Your task to perform on an android device: allow notifications from all sites in the chrome app Image 0: 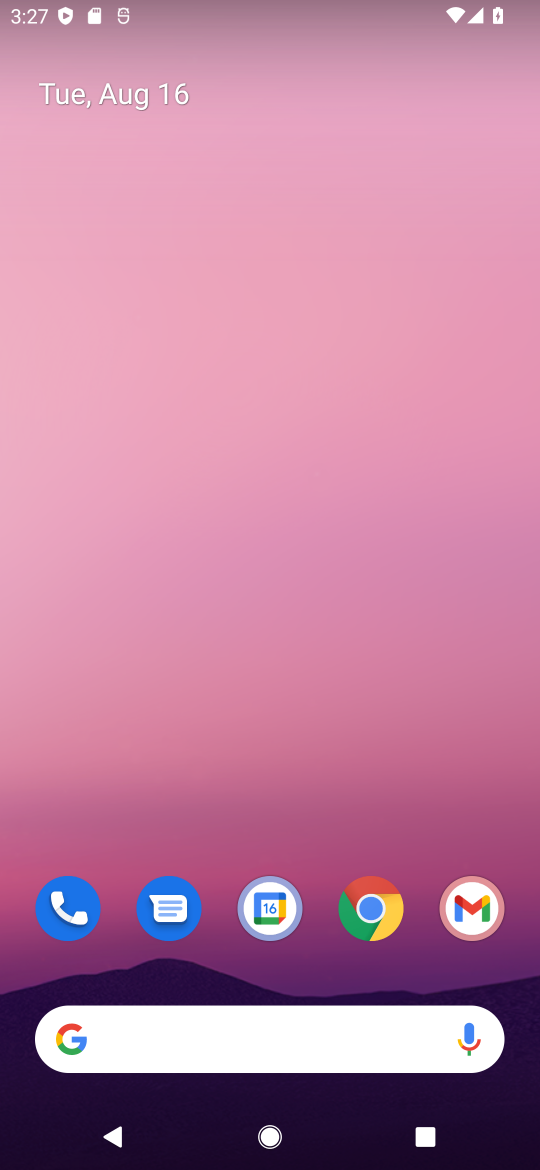
Step 0: press home button
Your task to perform on an android device: allow notifications from all sites in the chrome app Image 1: 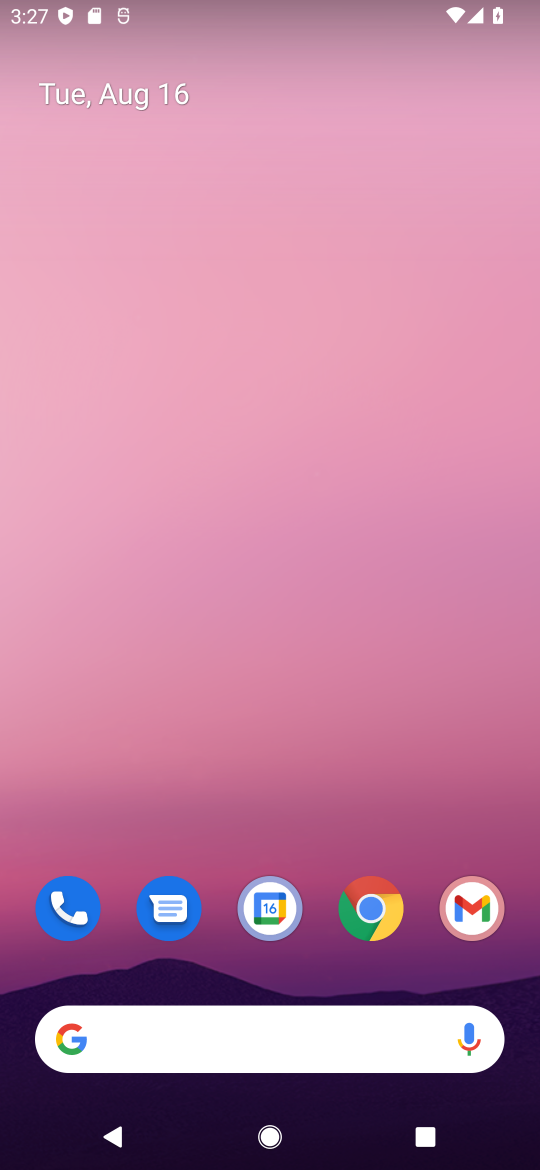
Step 1: drag from (320, 974) to (368, 223)
Your task to perform on an android device: allow notifications from all sites in the chrome app Image 2: 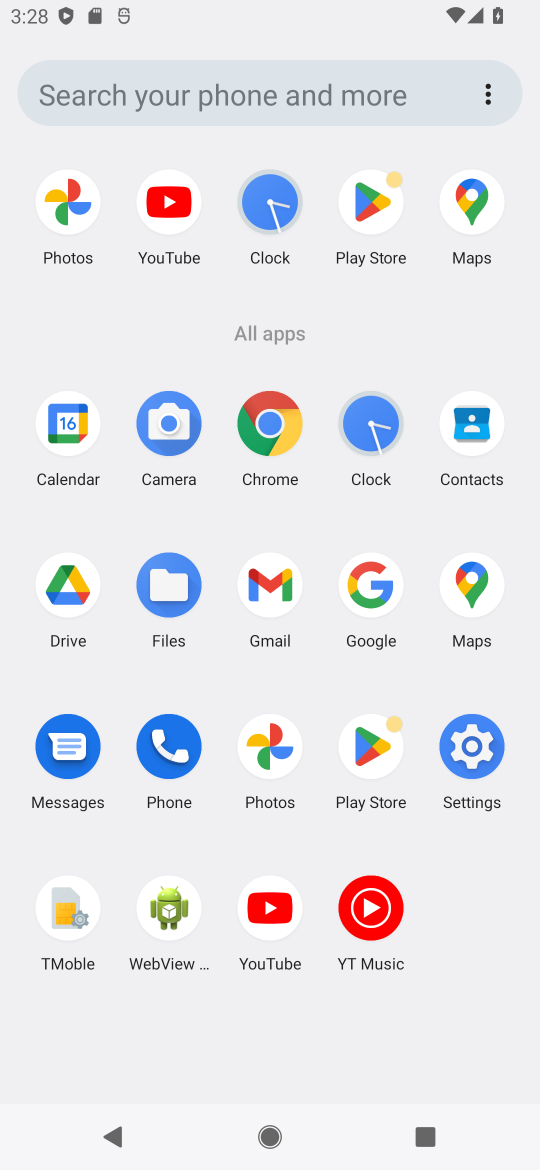
Step 2: click (264, 418)
Your task to perform on an android device: allow notifications from all sites in the chrome app Image 3: 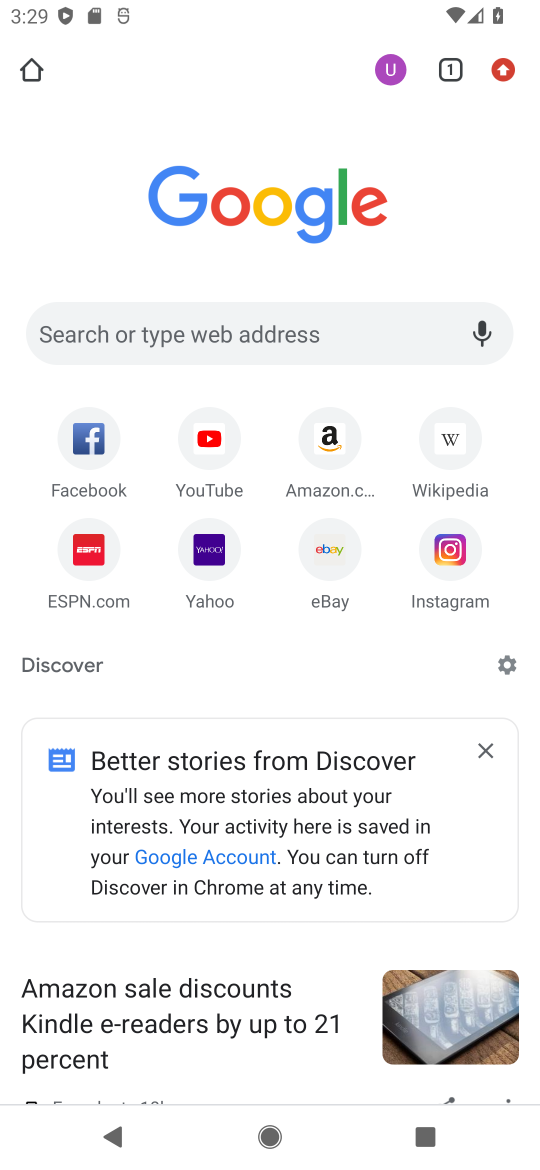
Step 3: click (506, 52)
Your task to perform on an android device: allow notifications from all sites in the chrome app Image 4: 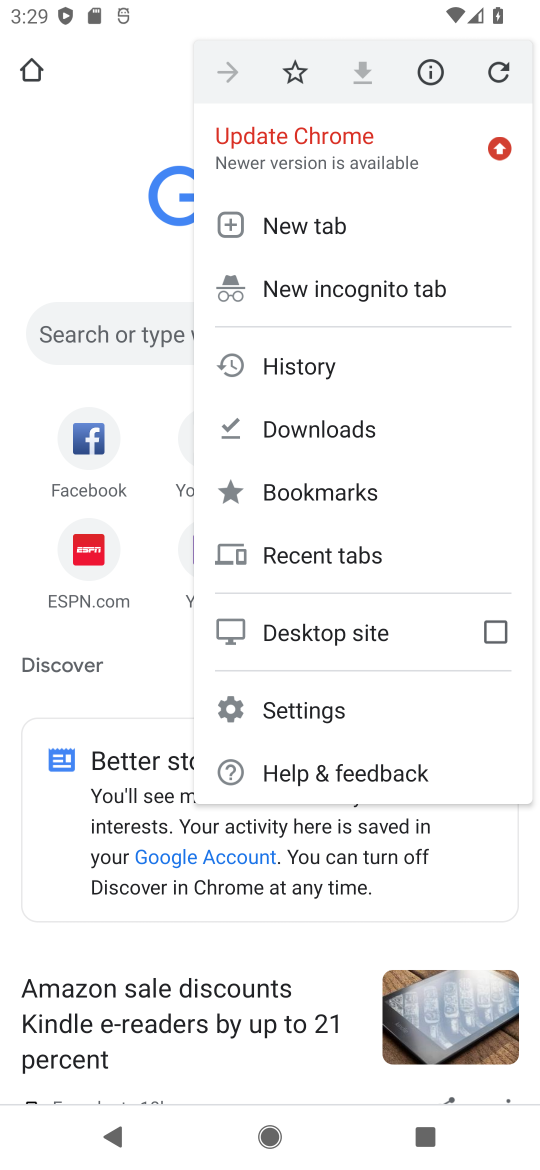
Step 4: click (344, 705)
Your task to perform on an android device: allow notifications from all sites in the chrome app Image 5: 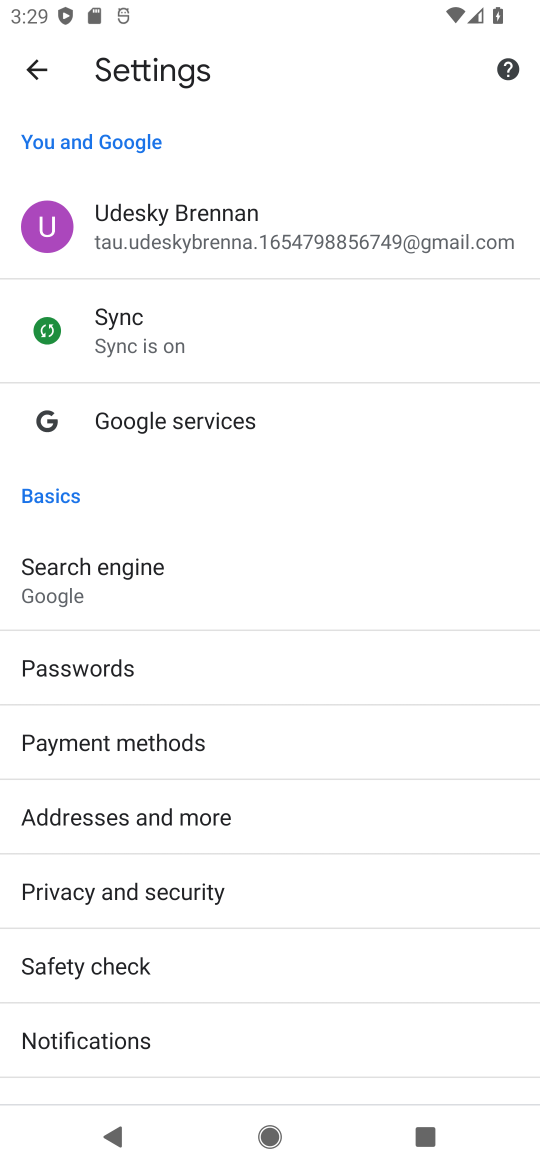
Step 5: drag from (209, 980) to (246, 251)
Your task to perform on an android device: allow notifications from all sites in the chrome app Image 6: 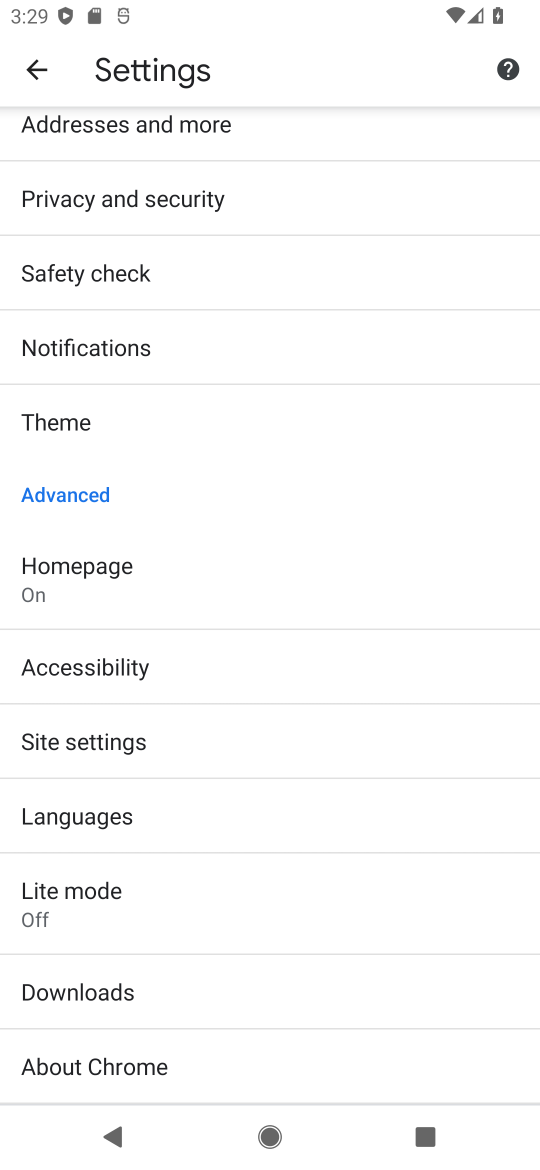
Step 6: click (161, 736)
Your task to perform on an android device: allow notifications from all sites in the chrome app Image 7: 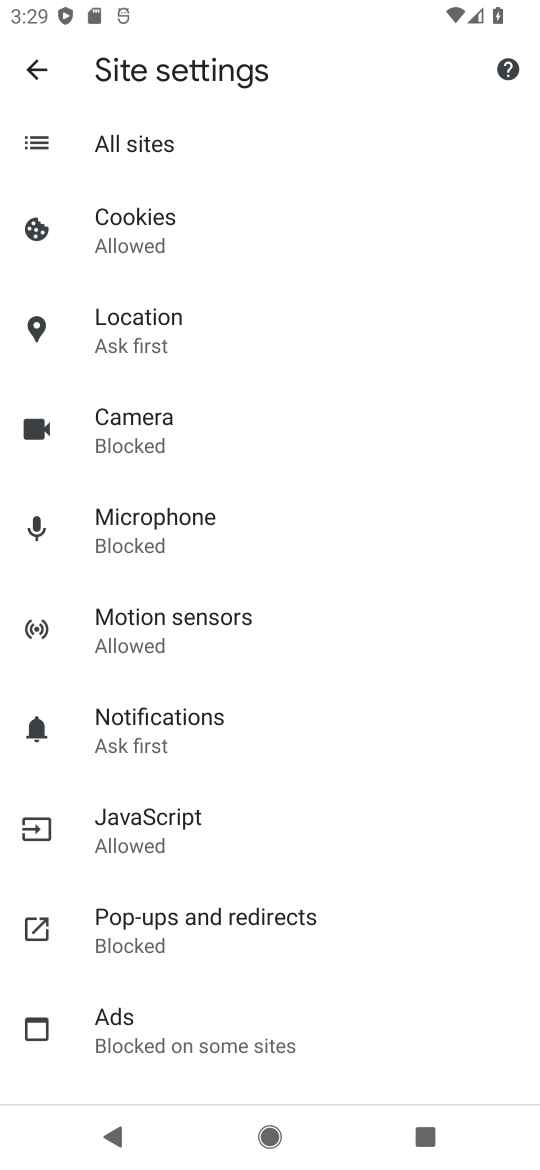
Step 7: drag from (212, 992) to (253, 368)
Your task to perform on an android device: allow notifications from all sites in the chrome app Image 8: 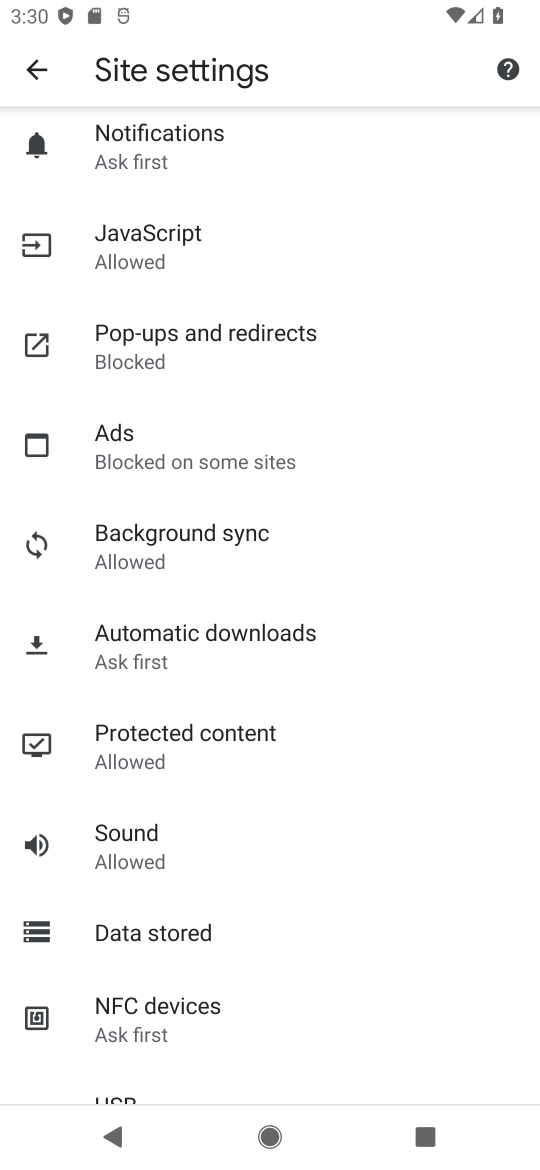
Step 8: drag from (182, 292) to (237, 1141)
Your task to perform on an android device: allow notifications from all sites in the chrome app Image 9: 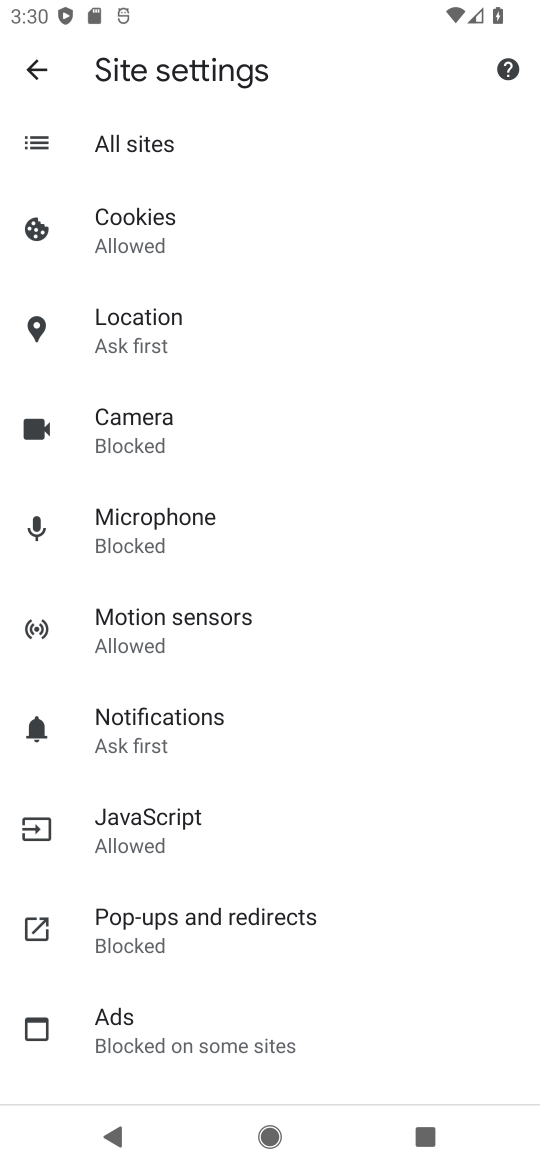
Step 9: click (82, 139)
Your task to perform on an android device: allow notifications from all sites in the chrome app Image 10: 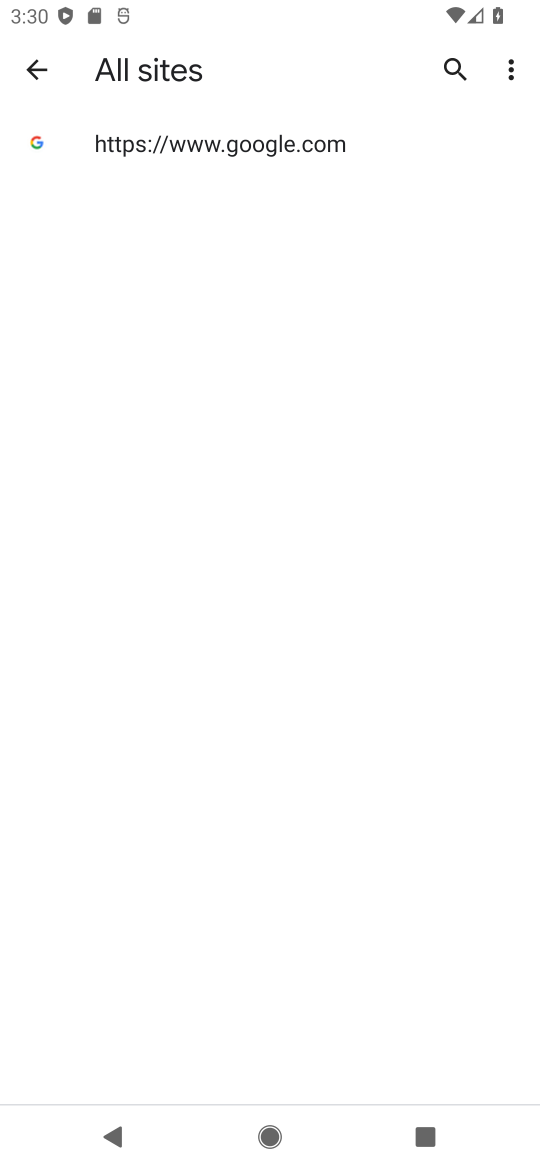
Step 10: click (271, 139)
Your task to perform on an android device: allow notifications from all sites in the chrome app Image 11: 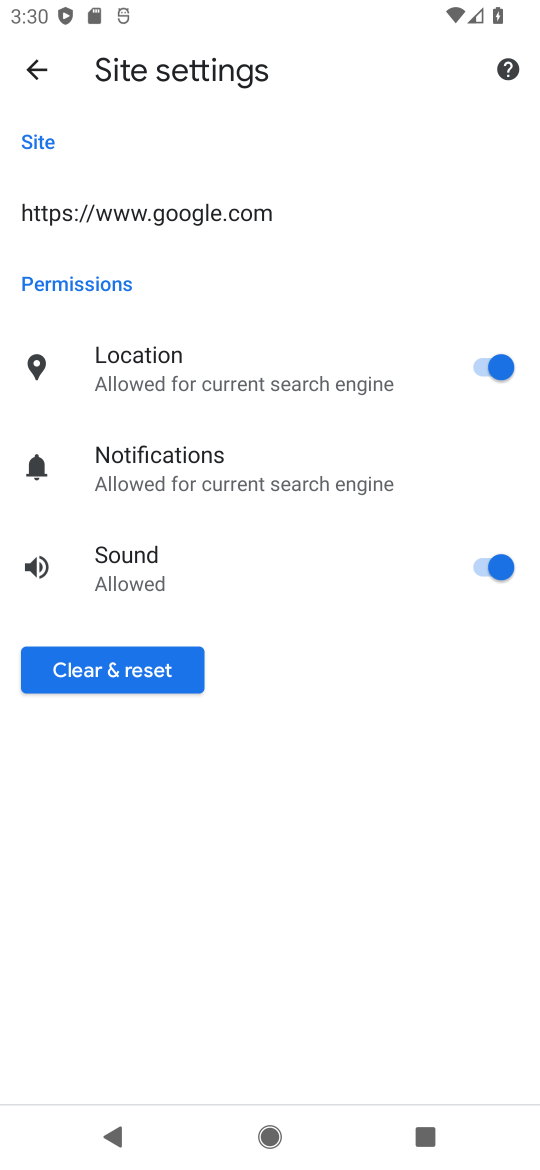
Step 11: task complete